Your task to perform on an android device: change the clock display to show seconds Image 0: 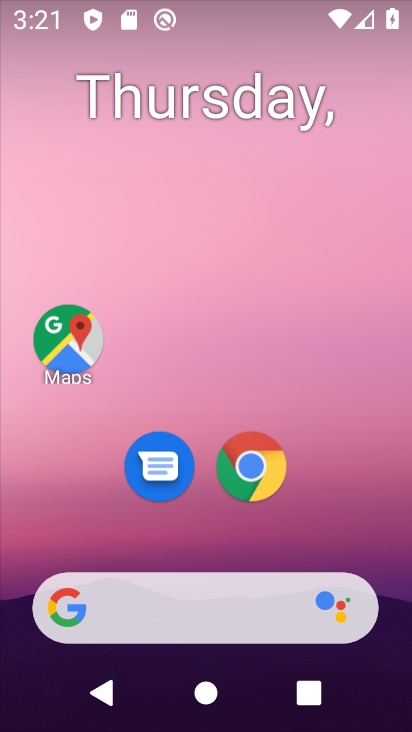
Step 0: drag from (135, 589) to (252, 15)
Your task to perform on an android device: change the clock display to show seconds Image 1: 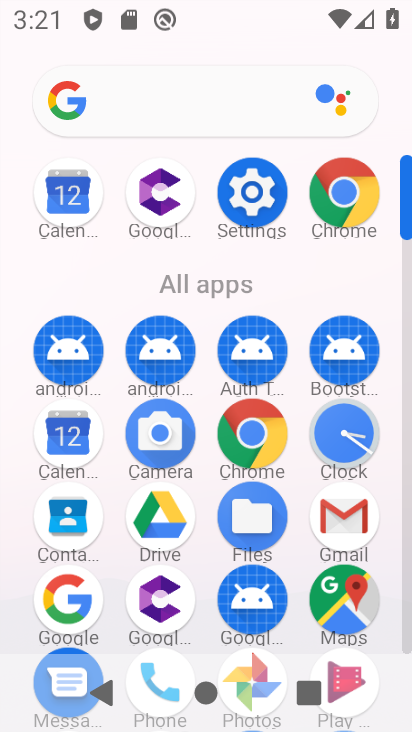
Step 1: click (342, 452)
Your task to perform on an android device: change the clock display to show seconds Image 2: 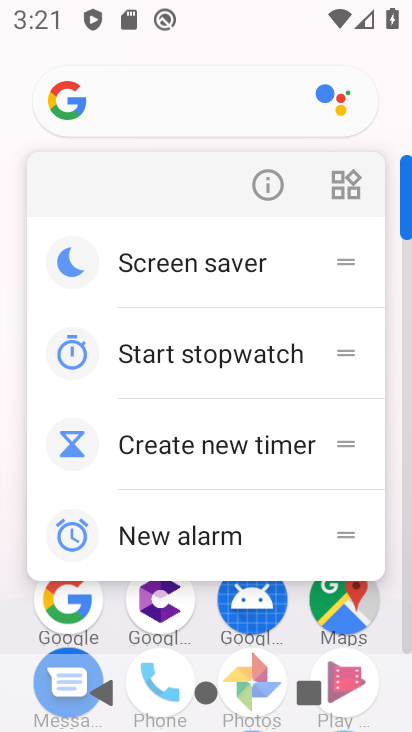
Step 2: click (374, 122)
Your task to perform on an android device: change the clock display to show seconds Image 3: 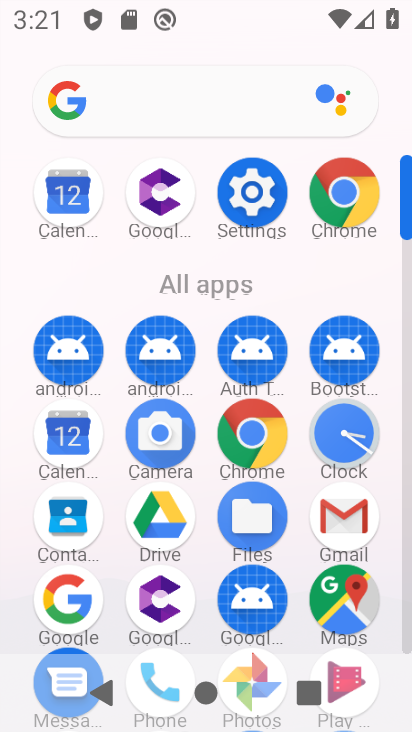
Step 3: click (358, 423)
Your task to perform on an android device: change the clock display to show seconds Image 4: 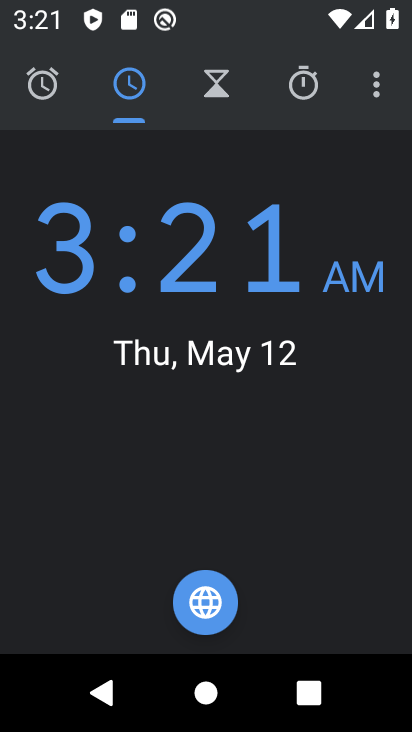
Step 4: click (372, 61)
Your task to perform on an android device: change the clock display to show seconds Image 5: 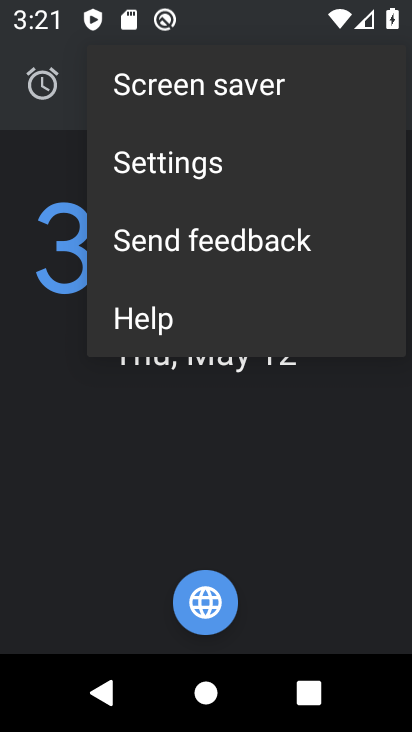
Step 5: click (241, 148)
Your task to perform on an android device: change the clock display to show seconds Image 6: 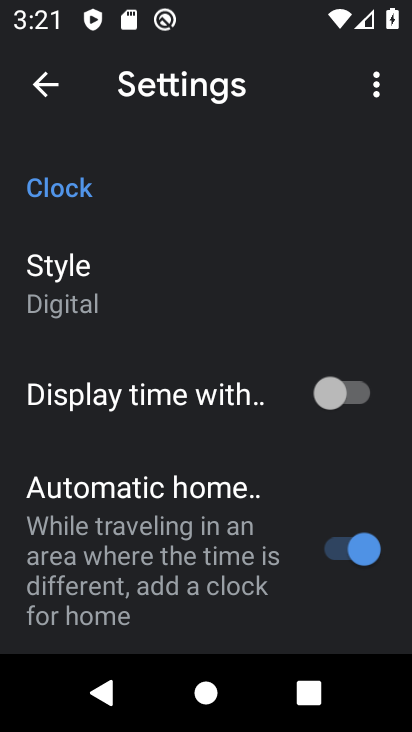
Step 6: click (353, 388)
Your task to perform on an android device: change the clock display to show seconds Image 7: 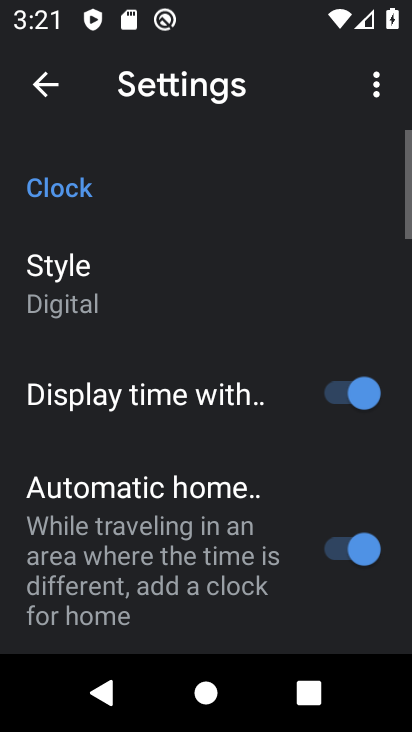
Step 7: task complete